Your task to perform on an android device: Open Chrome and go to settings Image 0: 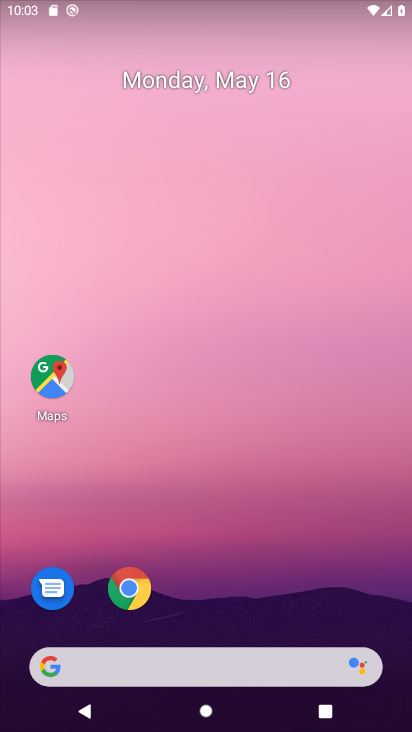
Step 0: press home button
Your task to perform on an android device: Open Chrome and go to settings Image 1: 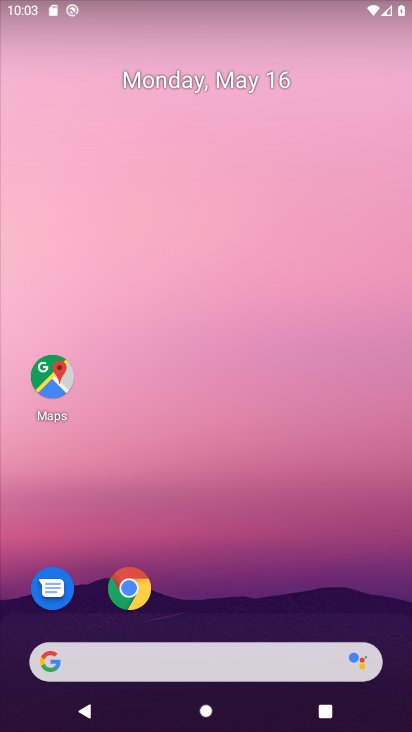
Step 1: click (130, 585)
Your task to perform on an android device: Open Chrome and go to settings Image 2: 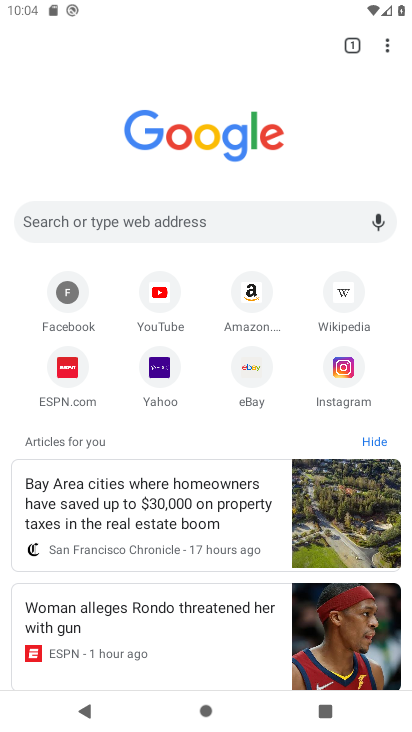
Step 2: click (387, 44)
Your task to perform on an android device: Open Chrome and go to settings Image 3: 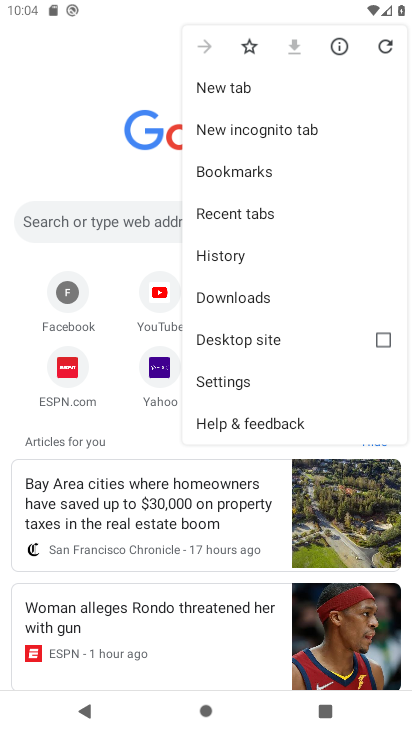
Step 3: click (256, 379)
Your task to perform on an android device: Open Chrome and go to settings Image 4: 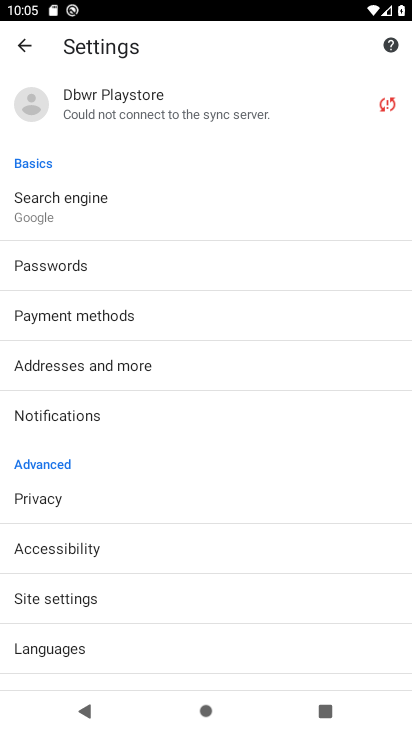
Step 4: task complete